Your task to perform on an android device: Go to sound settings Image 0: 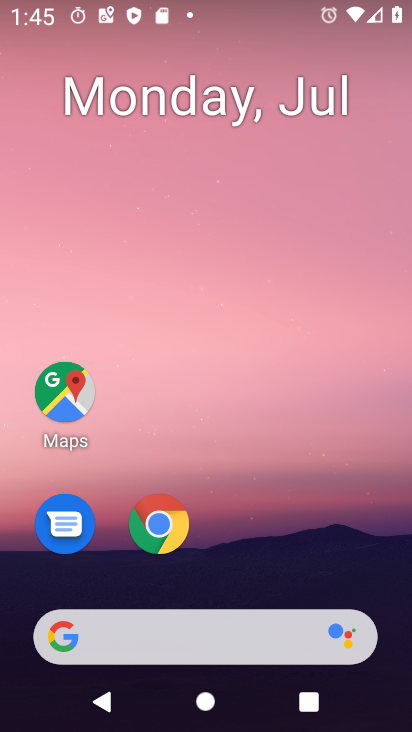
Step 0: press home button
Your task to perform on an android device: Go to sound settings Image 1: 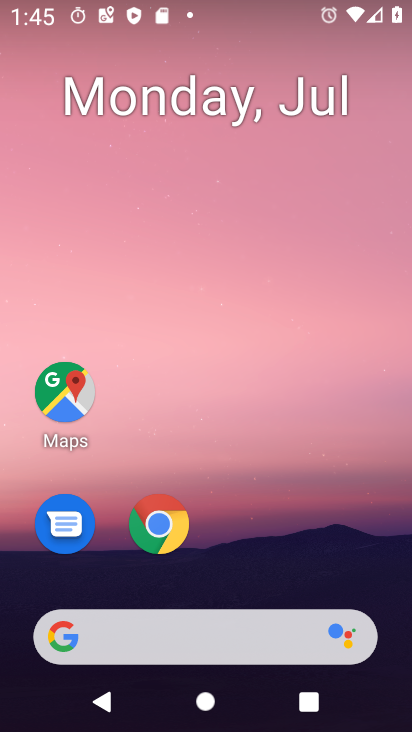
Step 1: drag from (323, 476) to (317, 170)
Your task to perform on an android device: Go to sound settings Image 2: 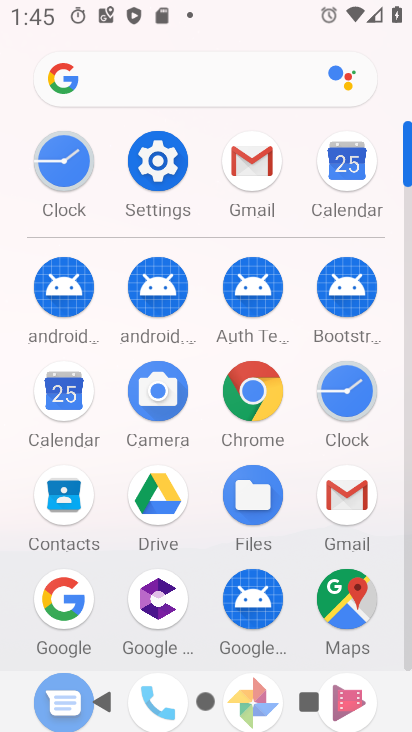
Step 2: click (162, 170)
Your task to perform on an android device: Go to sound settings Image 3: 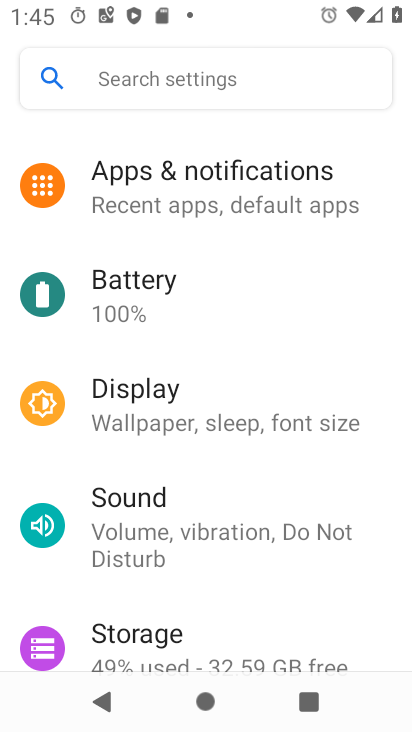
Step 3: click (222, 521)
Your task to perform on an android device: Go to sound settings Image 4: 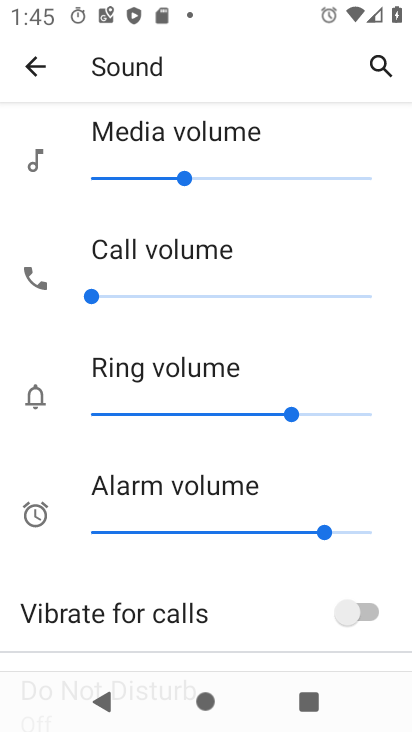
Step 4: task complete